Your task to perform on an android device: turn off airplane mode Image 0: 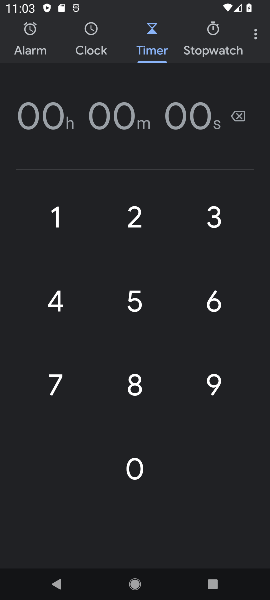
Step 0: press back button
Your task to perform on an android device: turn off airplane mode Image 1: 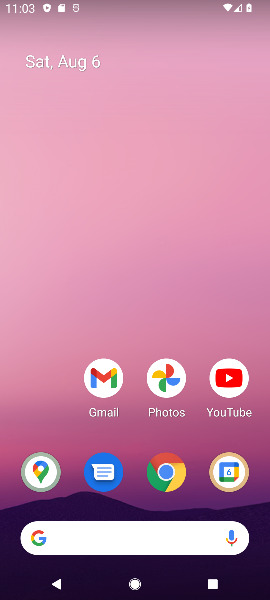
Step 1: drag from (153, 468) to (176, 89)
Your task to perform on an android device: turn off airplane mode Image 2: 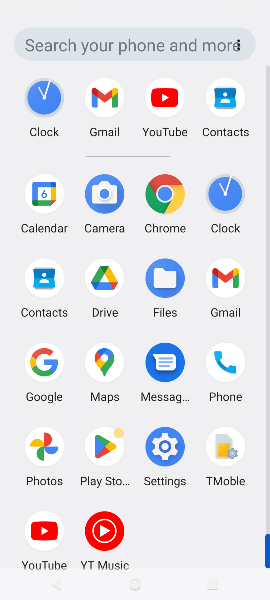
Step 2: drag from (233, 412) to (189, 24)
Your task to perform on an android device: turn off airplane mode Image 3: 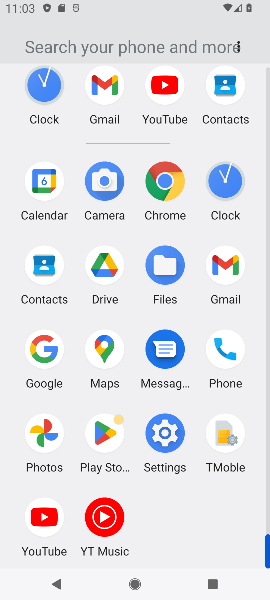
Step 3: click (157, 434)
Your task to perform on an android device: turn off airplane mode Image 4: 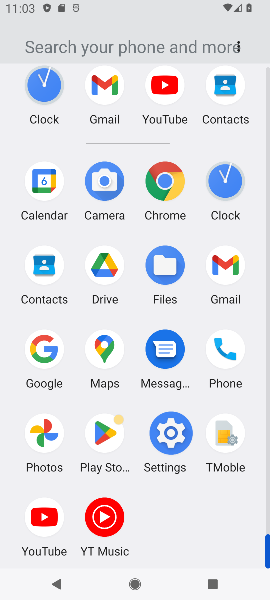
Step 4: click (163, 434)
Your task to perform on an android device: turn off airplane mode Image 5: 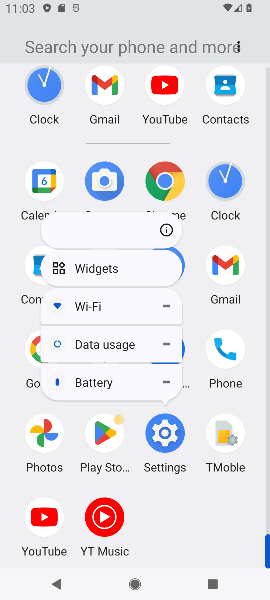
Step 5: click (164, 434)
Your task to perform on an android device: turn off airplane mode Image 6: 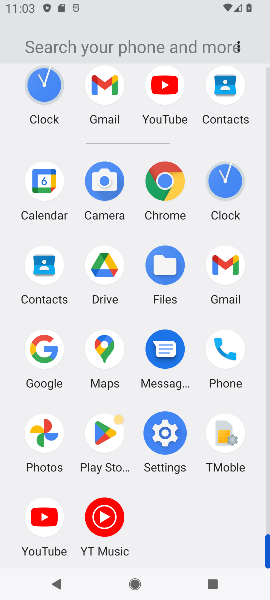
Step 6: click (165, 434)
Your task to perform on an android device: turn off airplane mode Image 7: 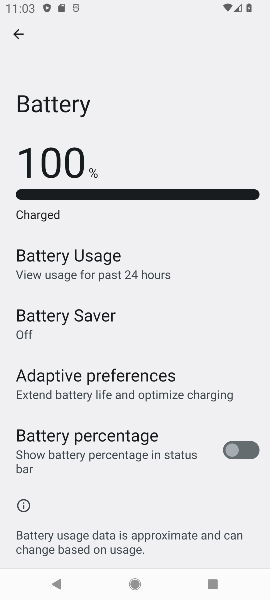
Step 7: click (23, 26)
Your task to perform on an android device: turn off airplane mode Image 8: 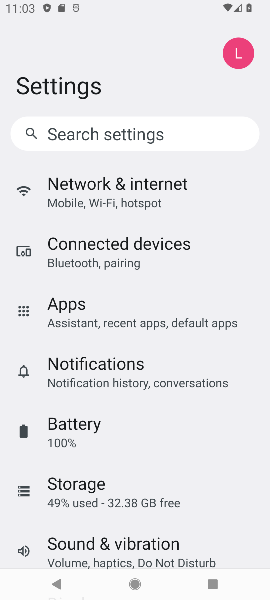
Step 8: click (124, 189)
Your task to perform on an android device: turn off airplane mode Image 9: 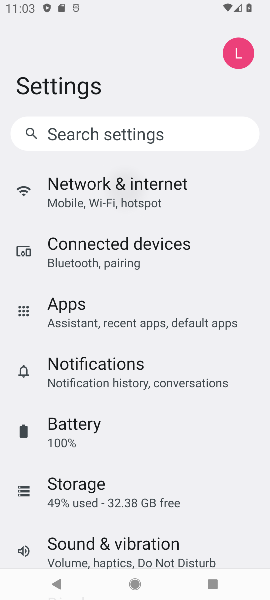
Step 9: click (131, 200)
Your task to perform on an android device: turn off airplane mode Image 10: 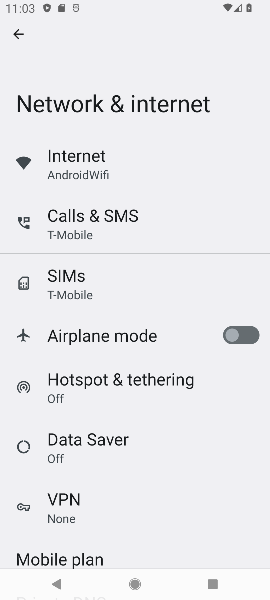
Step 10: task complete